Your task to perform on an android device: change notifications settings Image 0: 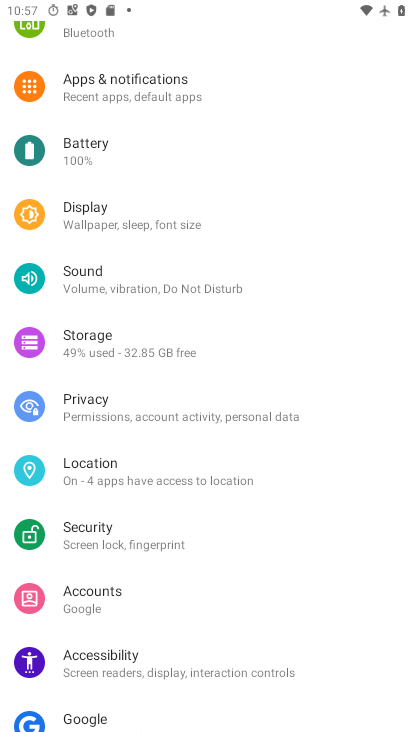
Step 0: click (105, 90)
Your task to perform on an android device: change notifications settings Image 1: 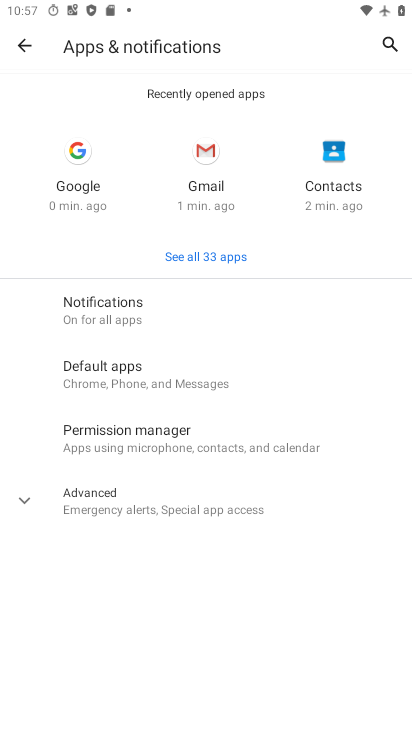
Step 1: click (137, 315)
Your task to perform on an android device: change notifications settings Image 2: 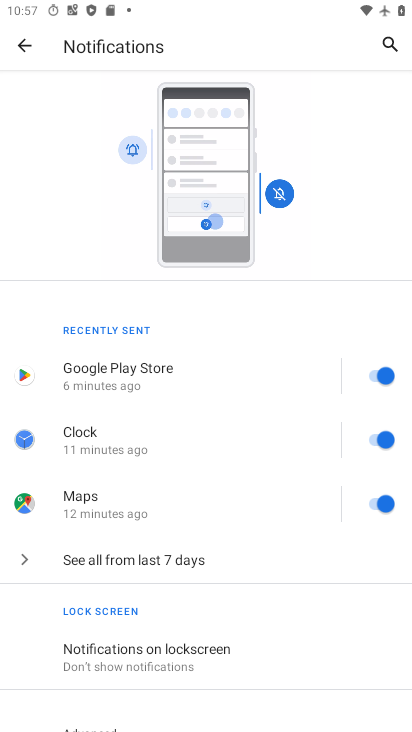
Step 2: task complete